Your task to perform on an android device: Open the map Image 0: 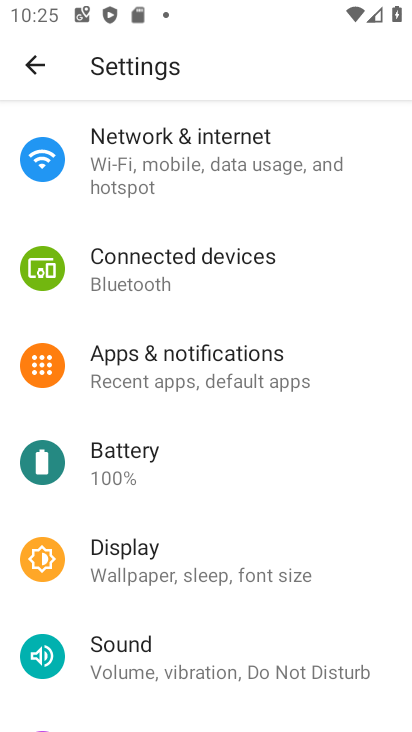
Step 0: press back button
Your task to perform on an android device: Open the map Image 1: 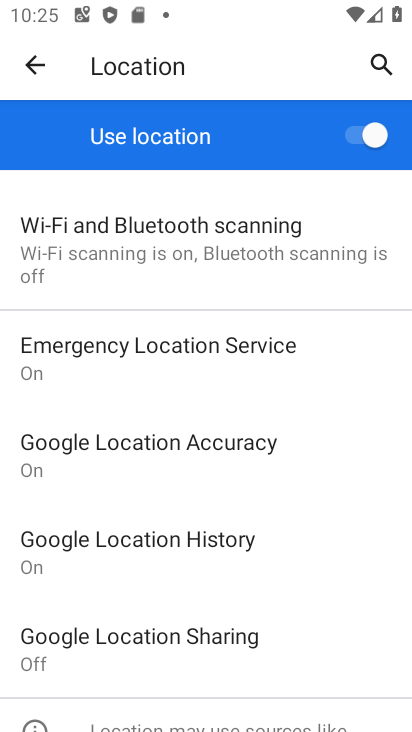
Step 1: press back button
Your task to perform on an android device: Open the map Image 2: 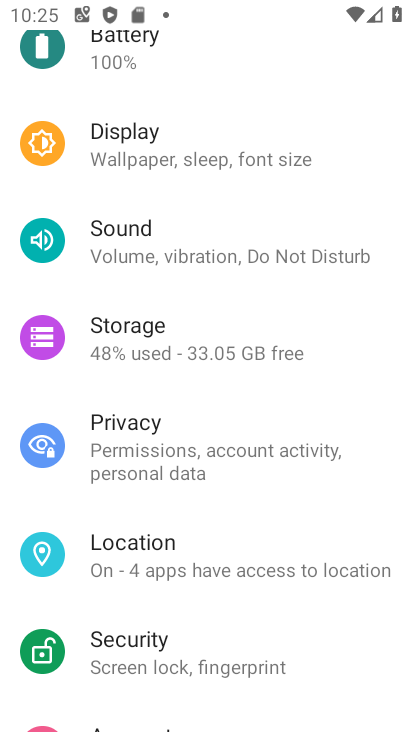
Step 2: press back button
Your task to perform on an android device: Open the map Image 3: 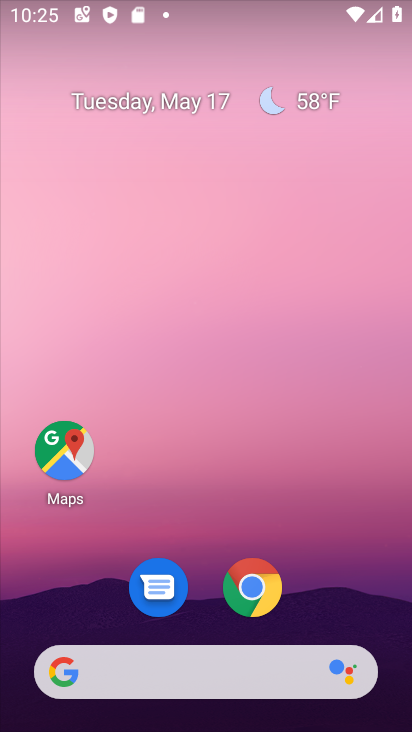
Step 3: click (61, 453)
Your task to perform on an android device: Open the map Image 4: 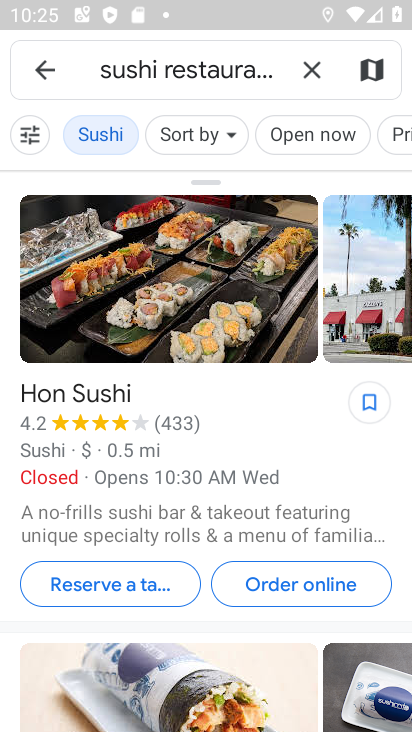
Step 4: click (305, 70)
Your task to perform on an android device: Open the map Image 5: 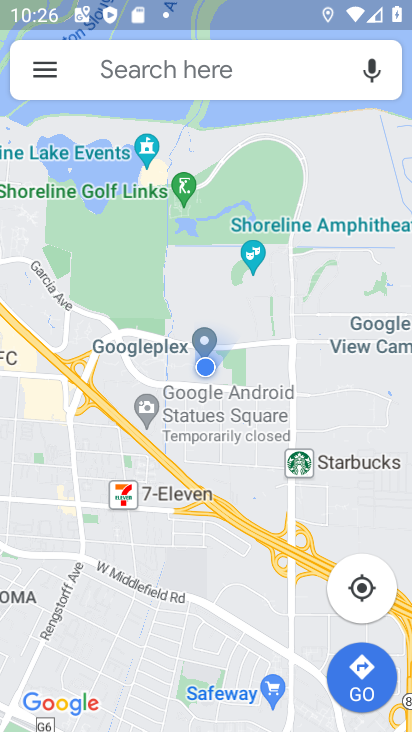
Step 5: task complete